Your task to perform on an android device: turn on the 12-hour format for clock Image 0: 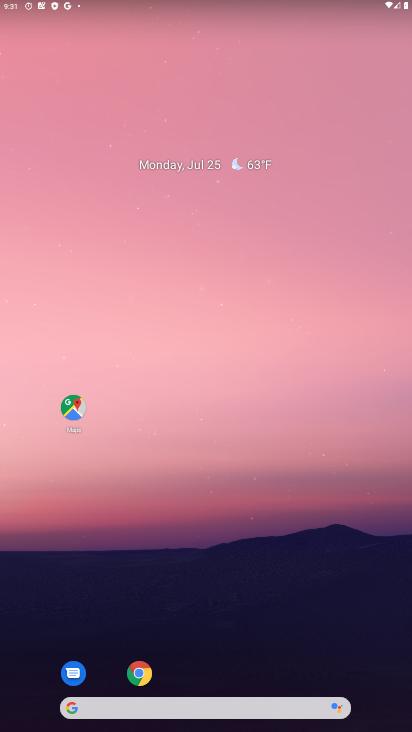
Step 0: drag from (185, 654) to (50, 434)
Your task to perform on an android device: turn on the 12-hour format for clock Image 1: 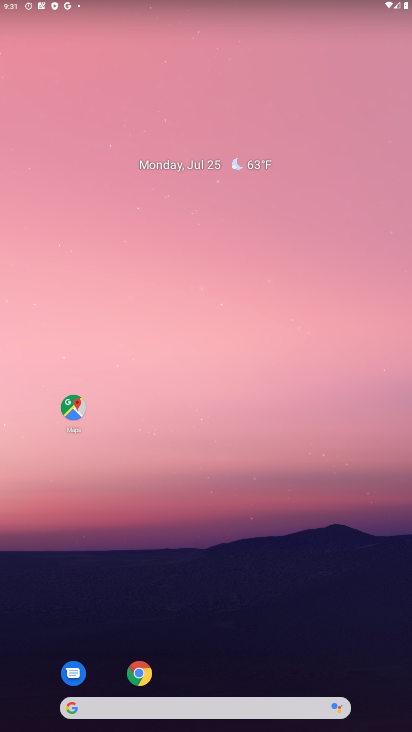
Step 1: drag from (189, 669) to (245, 194)
Your task to perform on an android device: turn on the 12-hour format for clock Image 2: 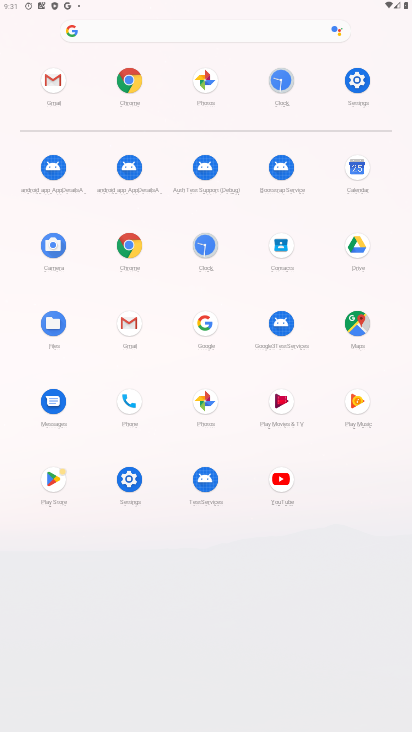
Step 2: click (196, 246)
Your task to perform on an android device: turn on the 12-hour format for clock Image 3: 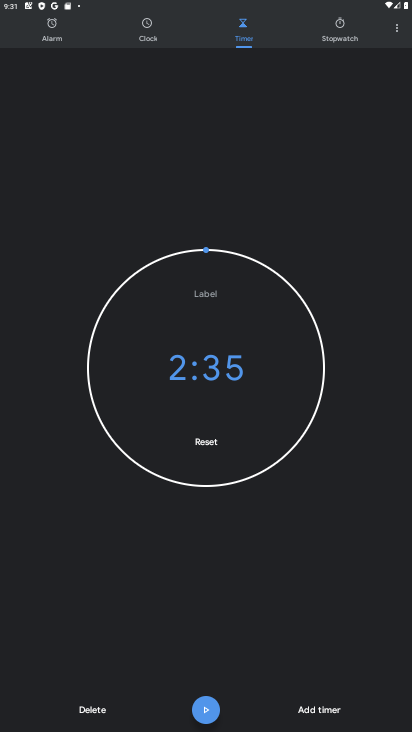
Step 3: drag from (401, 21) to (347, 51)
Your task to perform on an android device: turn on the 12-hour format for clock Image 4: 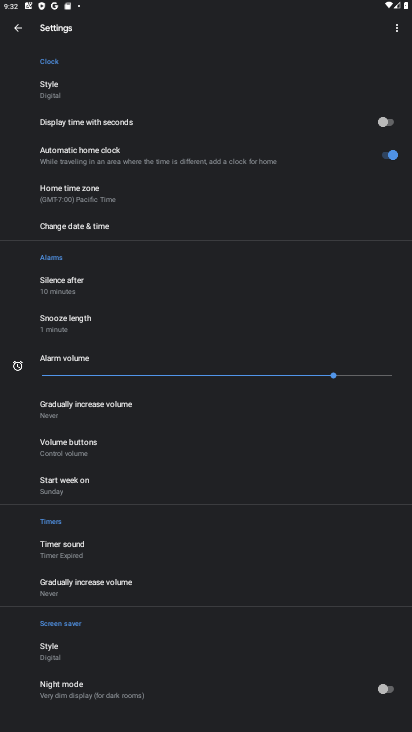
Step 4: click (78, 235)
Your task to perform on an android device: turn on the 12-hour format for clock Image 5: 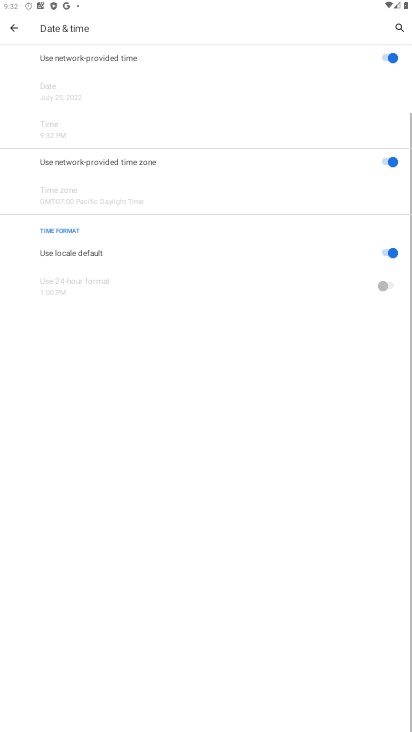
Step 5: task complete